Your task to perform on an android device: Go to Wikipedia Image 0: 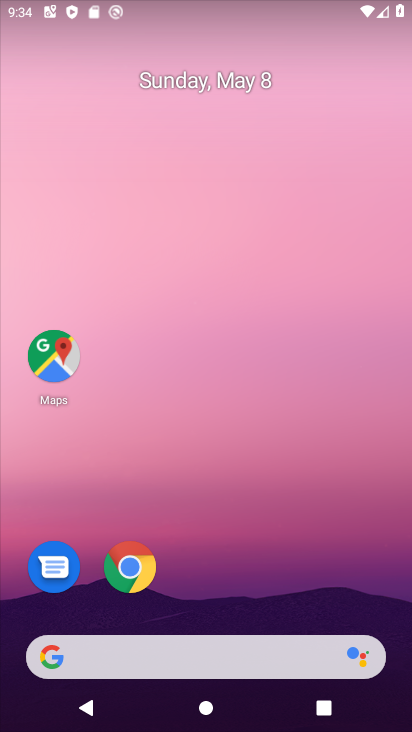
Step 0: drag from (354, 576) to (142, 8)
Your task to perform on an android device: Go to Wikipedia Image 1: 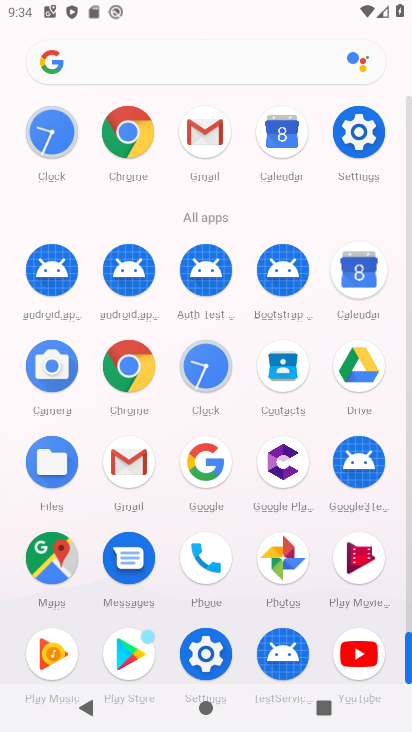
Step 1: click (122, 137)
Your task to perform on an android device: Go to Wikipedia Image 2: 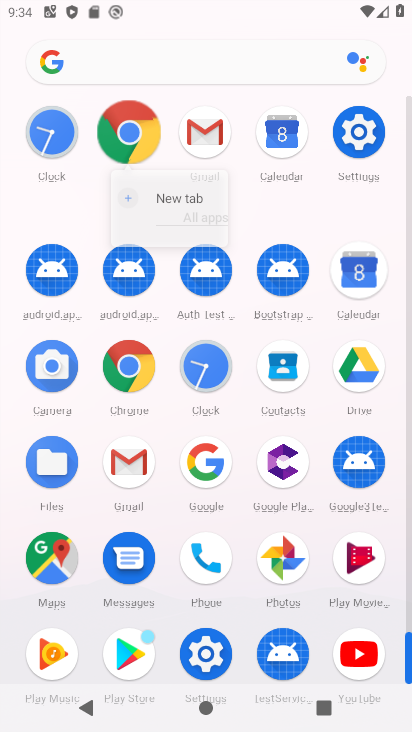
Step 2: click (122, 137)
Your task to perform on an android device: Go to Wikipedia Image 3: 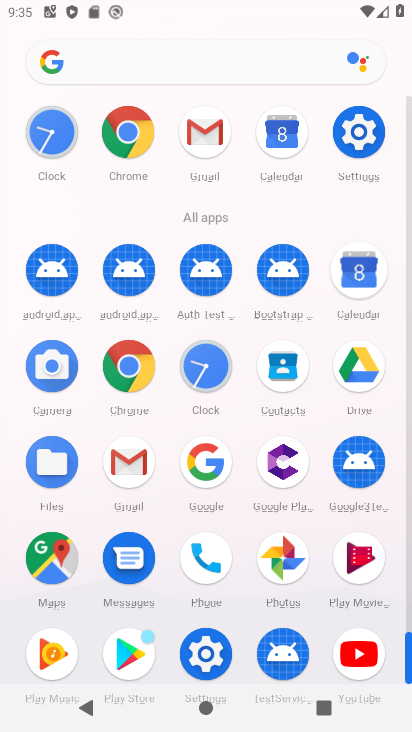
Step 3: click (122, 137)
Your task to perform on an android device: Go to Wikipedia Image 4: 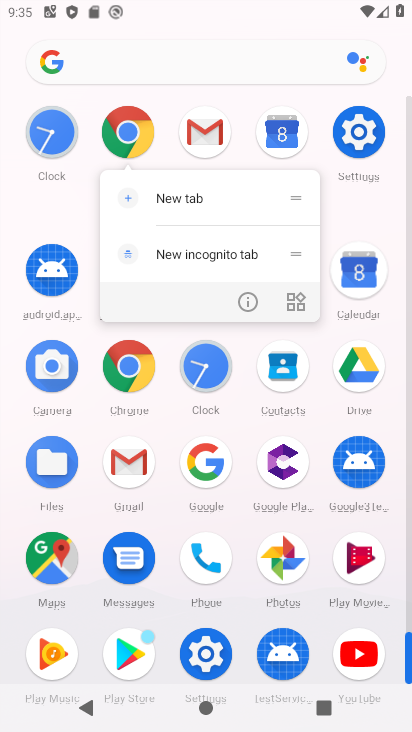
Step 4: click (126, 135)
Your task to perform on an android device: Go to Wikipedia Image 5: 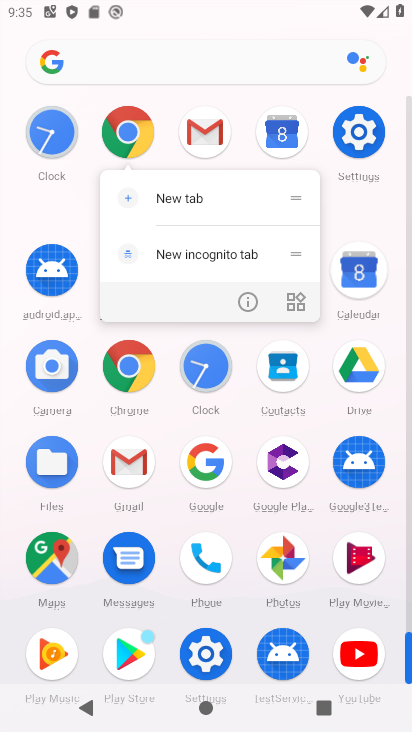
Step 5: click (135, 131)
Your task to perform on an android device: Go to Wikipedia Image 6: 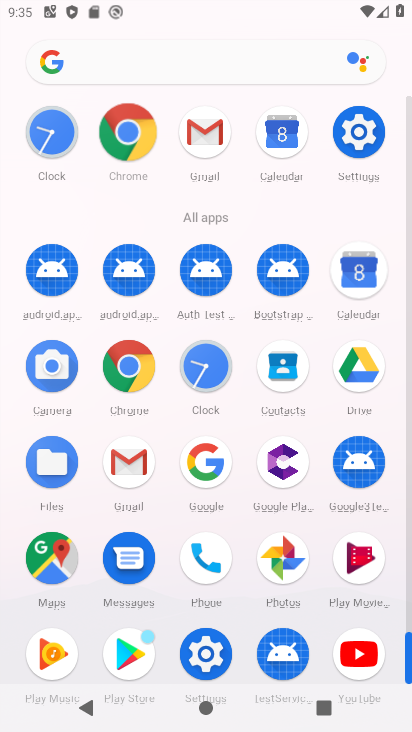
Step 6: click (131, 155)
Your task to perform on an android device: Go to Wikipedia Image 7: 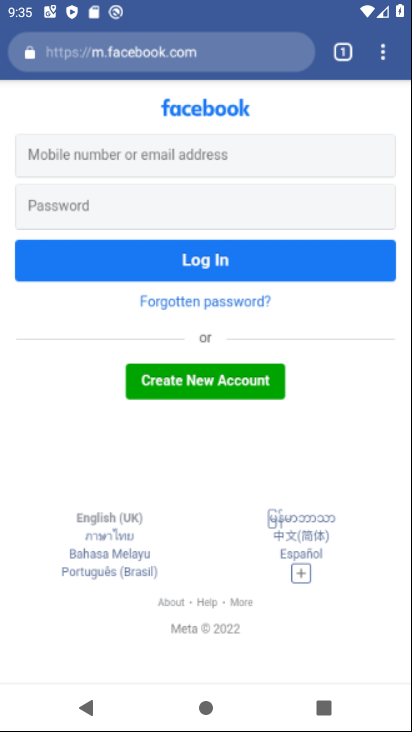
Step 7: click (131, 139)
Your task to perform on an android device: Go to Wikipedia Image 8: 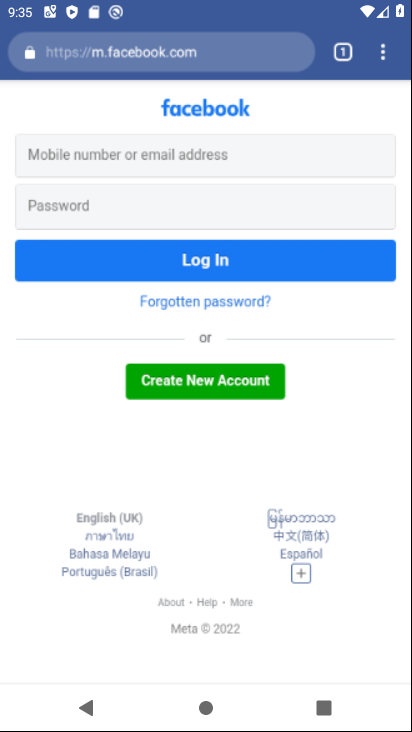
Step 8: click (131, 139)
Your task to perform on an android device: Go to Wikipedia Image 9: 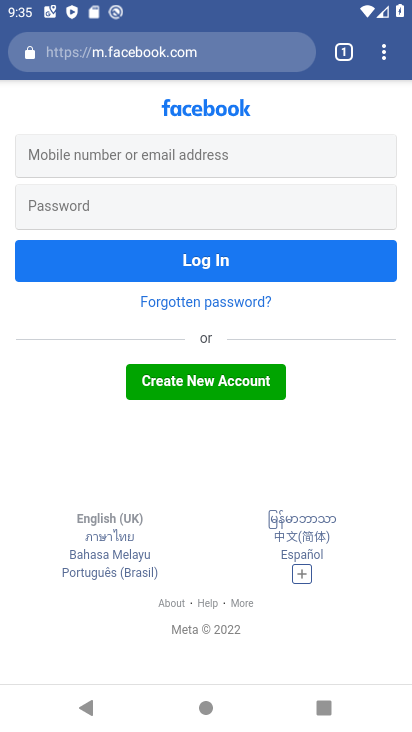
Step 9: drag from (385, 45) to (197, 106)
Your task to perform on an android device: Go to Wikipedia Image 10: 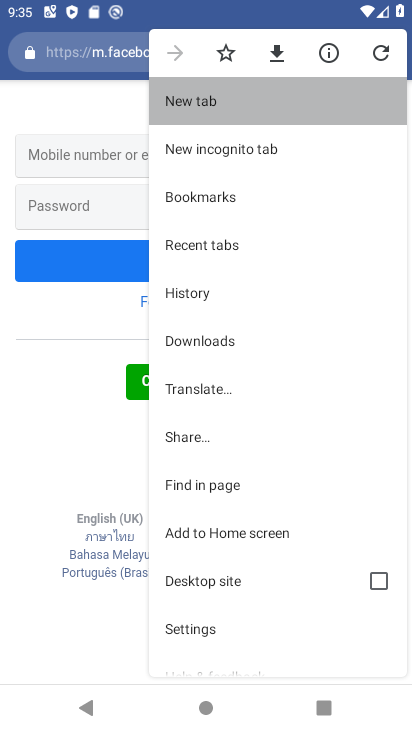
Step 10: click (197, 106)
Your task to perform on an android device: Go to Wikipedia Image 11: 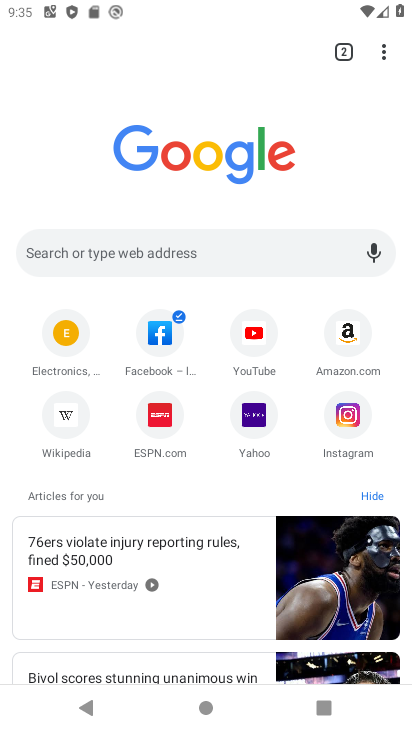
Step 11: click (66, 422)
Your task to perform on an android device: Go to Wikipedia Image 12: 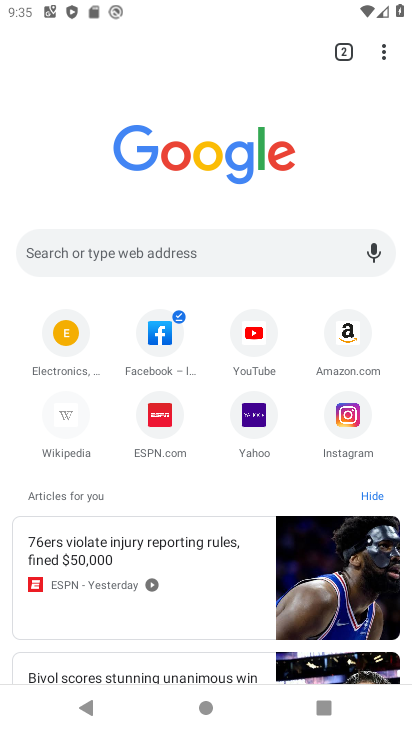
Step 12: click (65, 422)
Your task to perform on an android device: Go to Wikipedia Image 13: 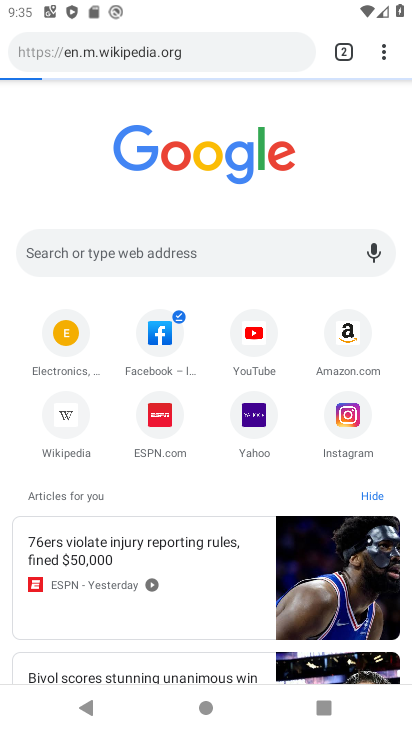
Step 13: click (65, 422)
Your task to perform on an android device: Go to Wikipedia Image 14: 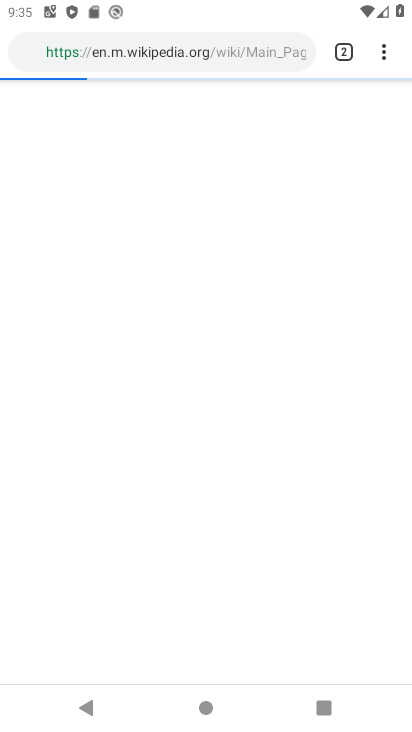
Step 14: click (53, 413)
Your task to perform on an android device: Go to Wikipedia Image 15: 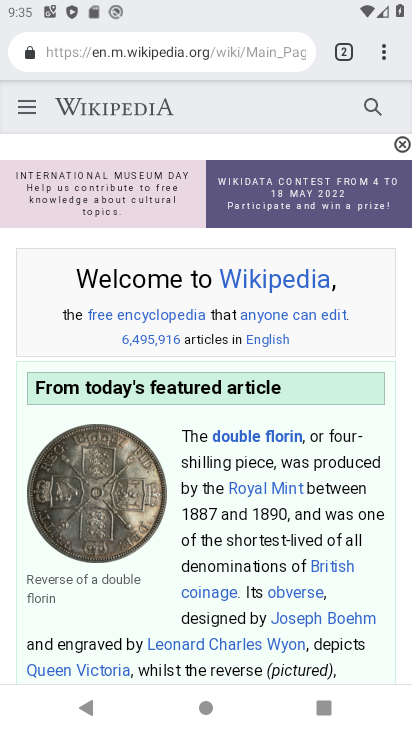
Step 15: task complete